Your task to perform on an android device: Is it going to rain tomorrow? Image 0: 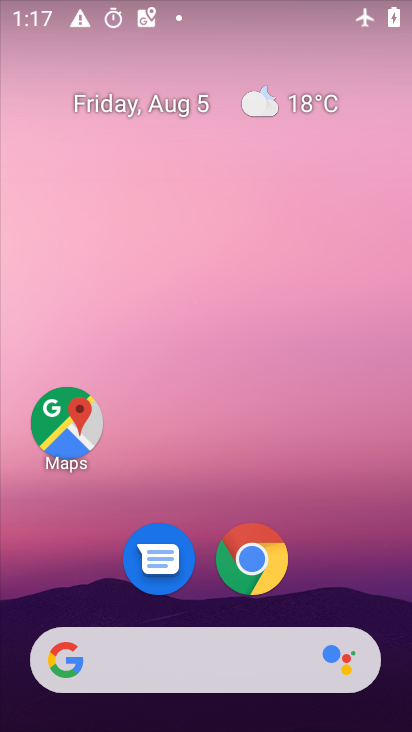
Step 0: click (110, 650)
Your task to perform on an android device: Is it going to rain tomorrow? Image 1: 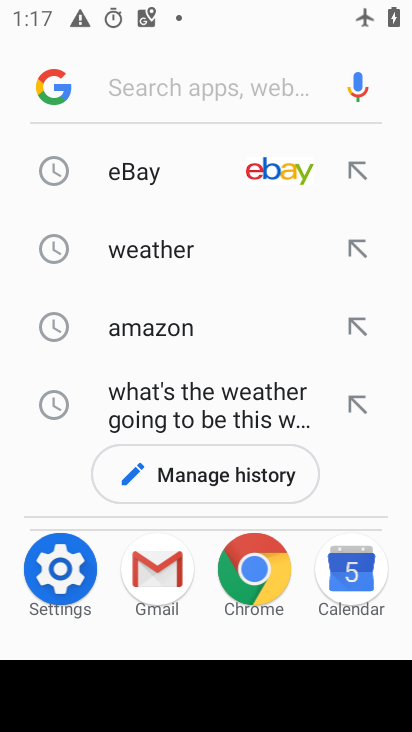
Step 1: type "Is it going to rain tomorrow?"
Your task to perform on an android device: Is it going to rain tomorrow? Image 2: 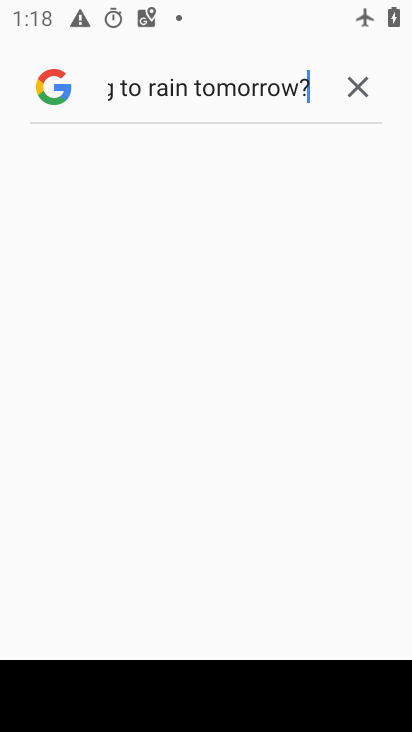
Step 2: type ""
Your task to perform on an android device: Is it going to rain tomorrow? Image 3: 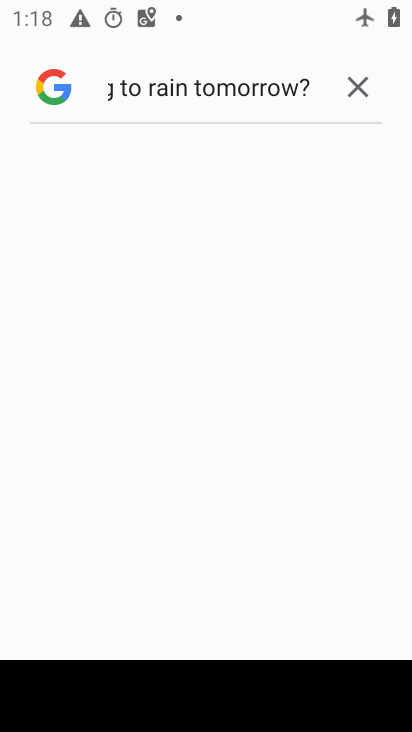
Step 3: type ""
Your task to perform on an android device: Is it going to rain tomorrow? Image 4: 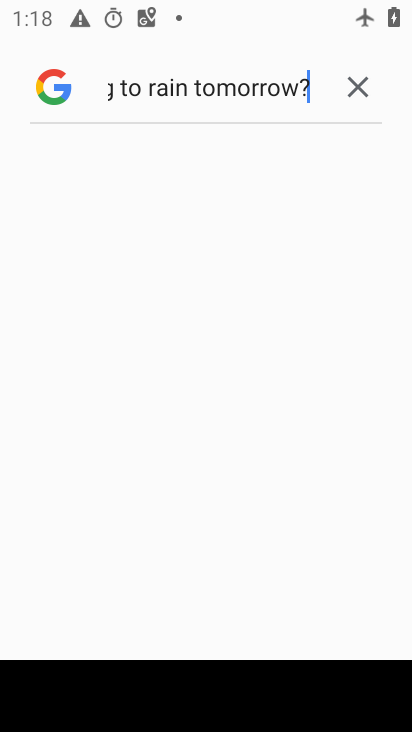
Step 4: task complete